Your task to perform on an android device: Play the last video I watched on Youtube Image 0: 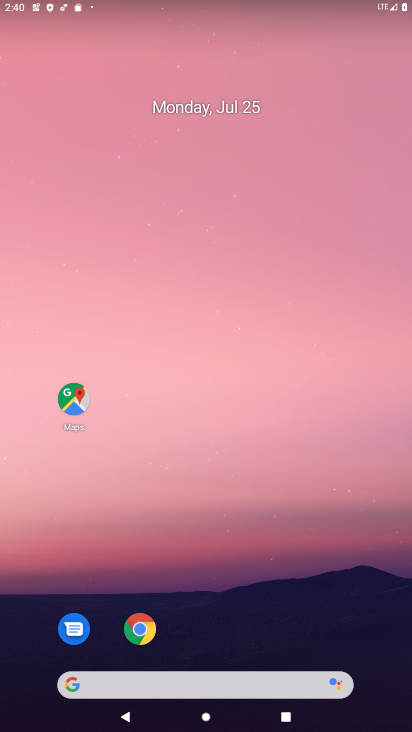
Step 0: drag from (158, 642) to (182, 144)
Your task to perform on an android device: Play the last video I watched on Youtube Image 1: 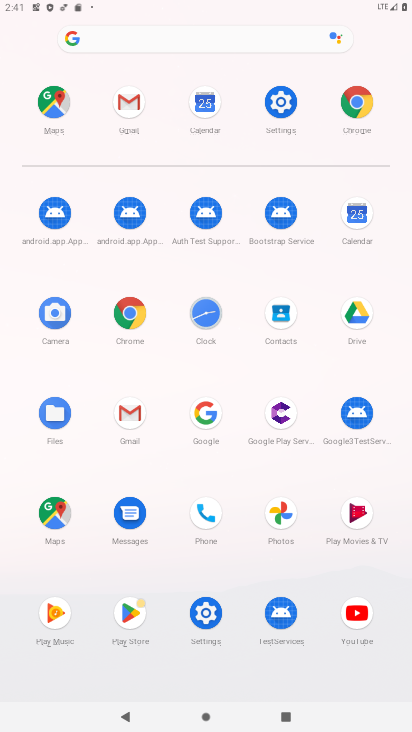
Step 1: click (358, 619)
Your task to perform on an android device: Play the last video I watched on Youtube Image 2: 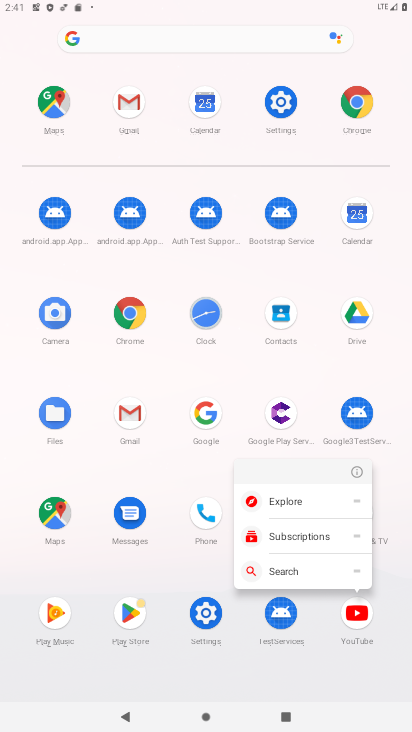
Step 2: click (351, 471)
Your task to perform on an android device: Play the last video I watched on Youtube Image 3: 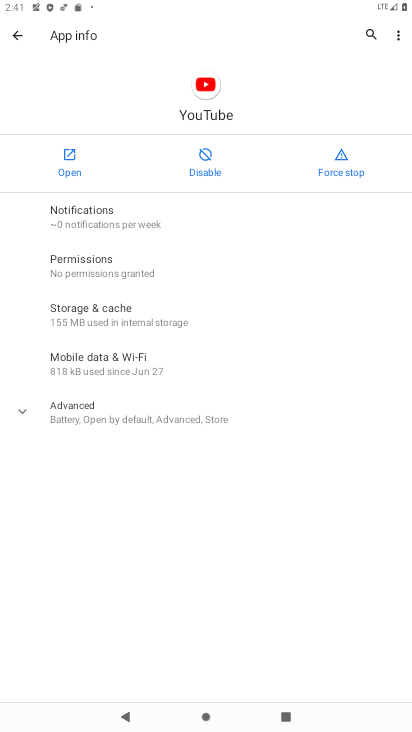
Step 3: click (81, 160)
Your task to perform on an android device: Play the last video I watched on Youtube Image 4: 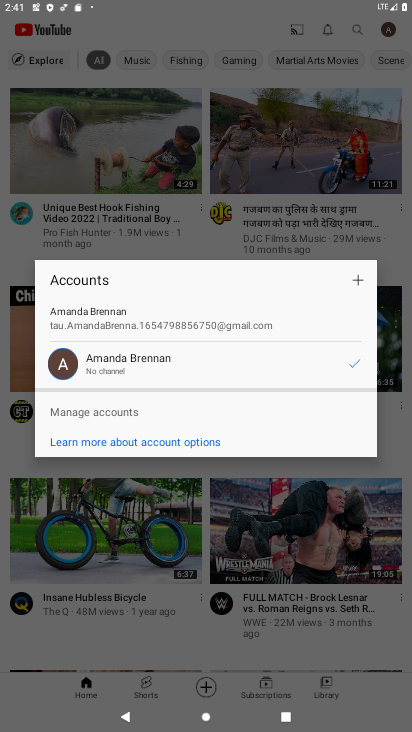
Step 4: click (324, 685)
Your task to perform on an android device: Play the last video I watched on Youtube Image 5: 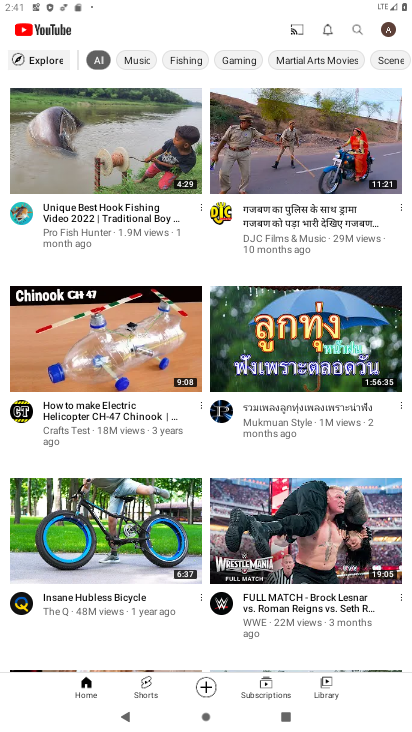
Step 5: click (322, 683)
Your task to perform on an android device: Play the last video I watched on Youtube Image 6: 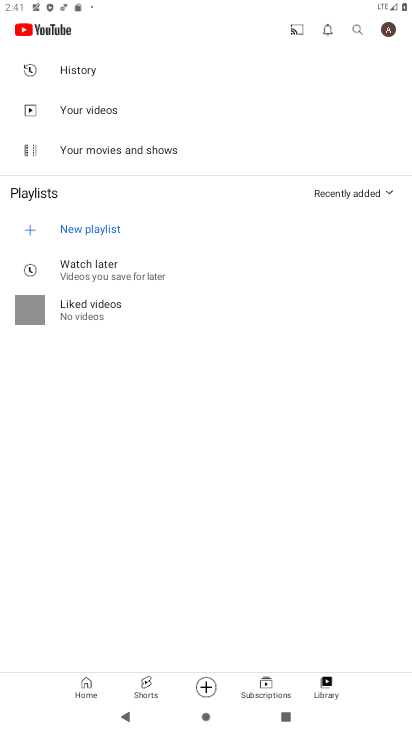
Step 6: click (80, 67)
Your task to perform on an android device: Play the last video I watched on Youtube Image 7: 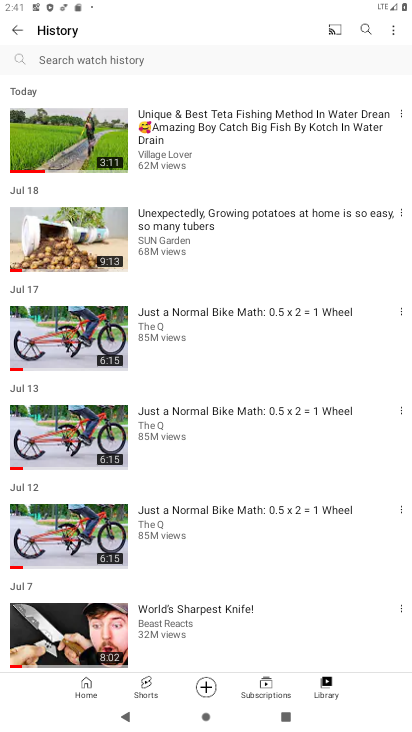
Step 7: click (165, 121)
Your task to perform on an android device: Play the last video I watched on Youtube Image 8: 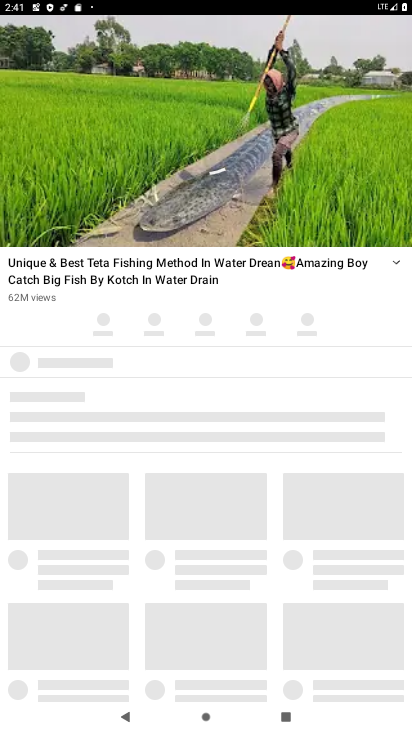
Step 8: task complete